Your task to perform on an android device: Go to Google maps Image 0: 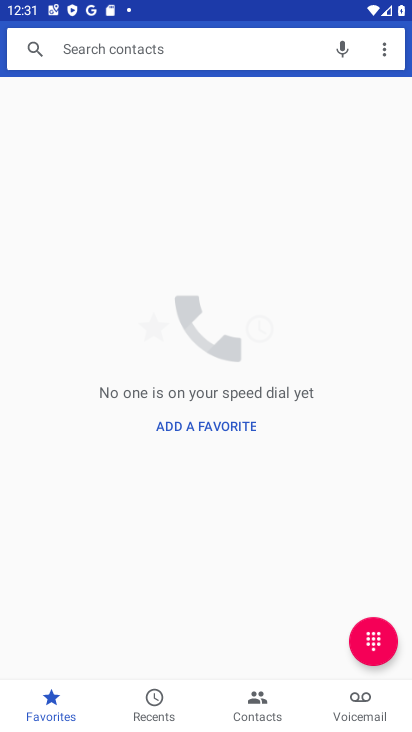
Step 0: press home button
Your task to perform on an android device: Go to Google maps Image 1: 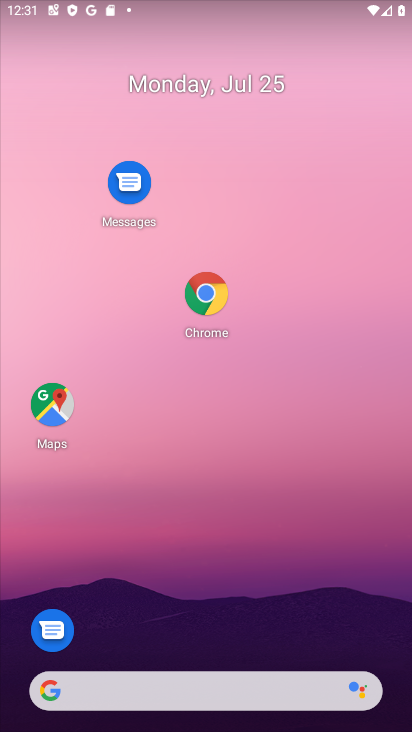
Step 1: drag from (289, 575) to (322, 3)
Your task to perform on an android device: Go to Google maps Image 2: 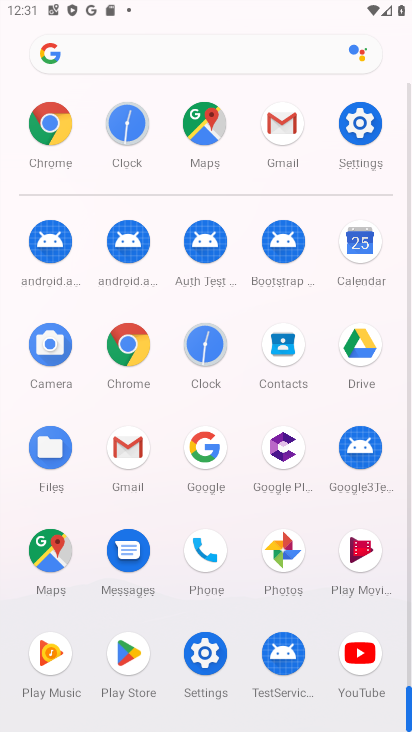
Step 2: click (208, 440)
Your task to perform on an android device: Go to Google maps Image 3: 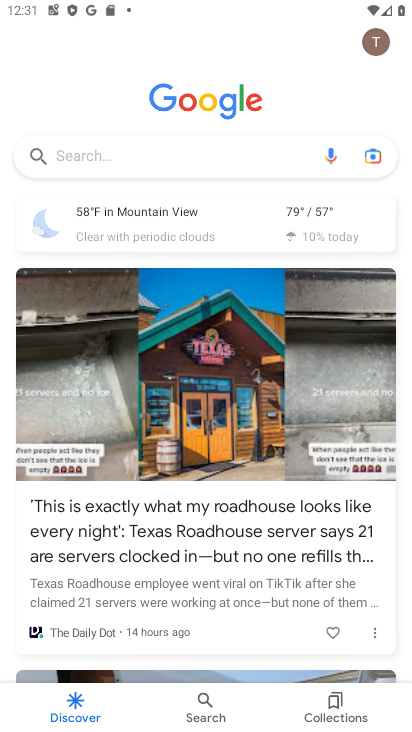
Step 3: task complete